Your task to perform on an android device: move a message to another label in the gmail app Image 0: 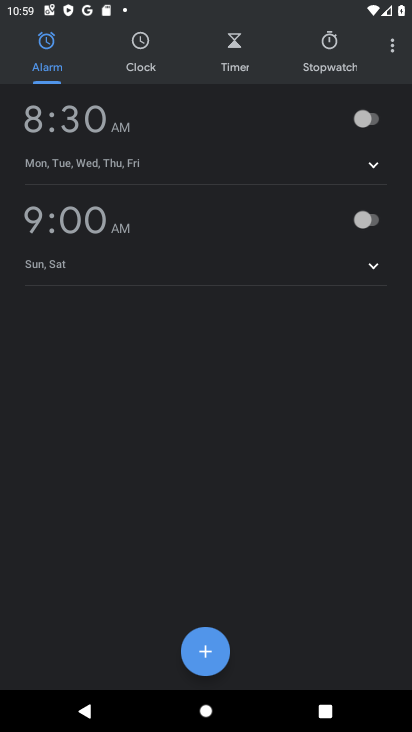
Step 0: press home button
Your task to perform on an android device: move a message to another label in the gmail app Image 1: 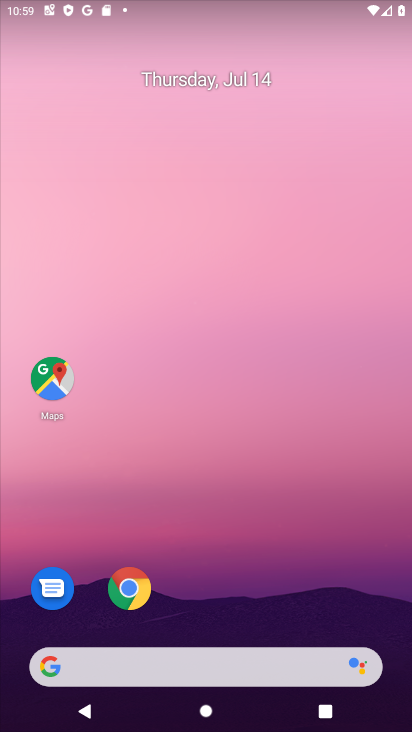
Step 1: drag from (152, 675) to (267, 97)
Your task to perform on an android device: move a message to another label in the gmail app Image 2: 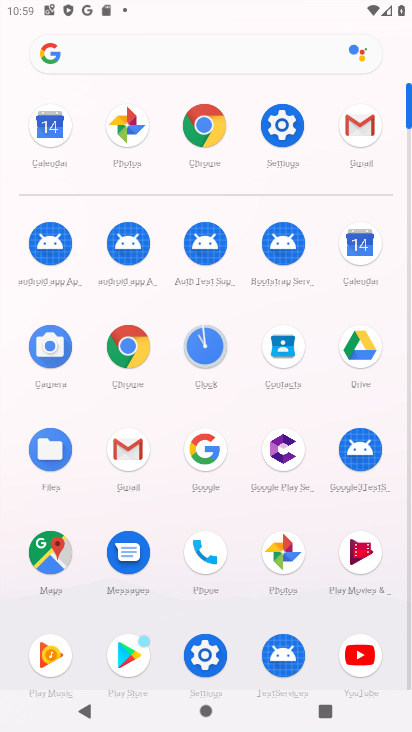
Step 2: click (356, 132)
Your task to perform on an android device: move a message to another label in the gmail app Image 3: 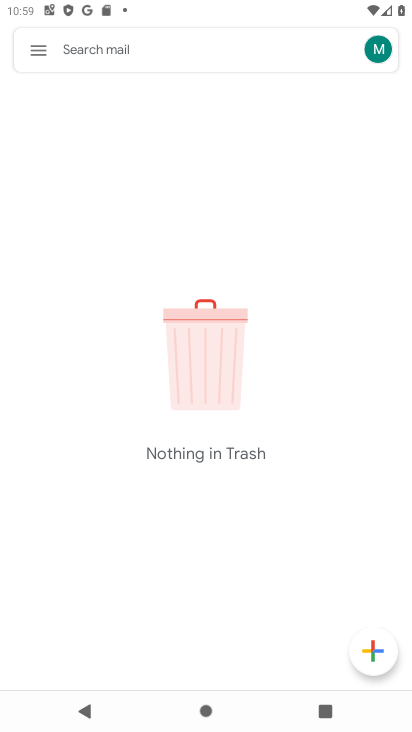
Step 3: click (34, 49)
Your task to perform on an android device: move a message to another label in the gmail app Image 4: 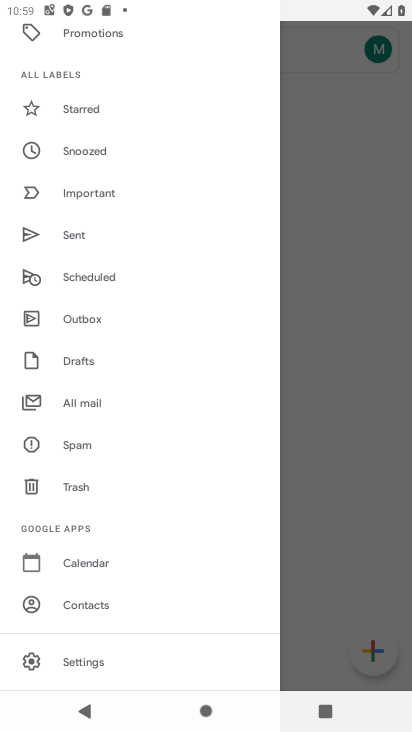
Step 4: drag from (179, 134) to (181, 496)
Your task to perform on an android device: move a message to another label in the gmail app Image 5: 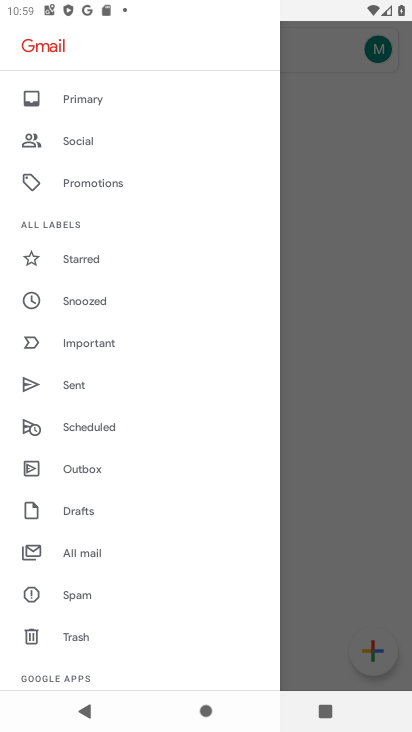
Step 5: click (91, 102)
Your task to perform on an android device: move a message to another label in the gmail app Image 6: 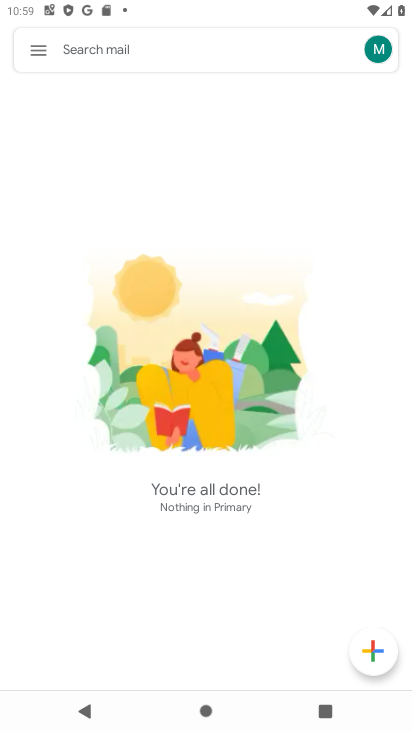
Step 6: task complete